Your task to perform on an android device: Open Google Maps Image 0: 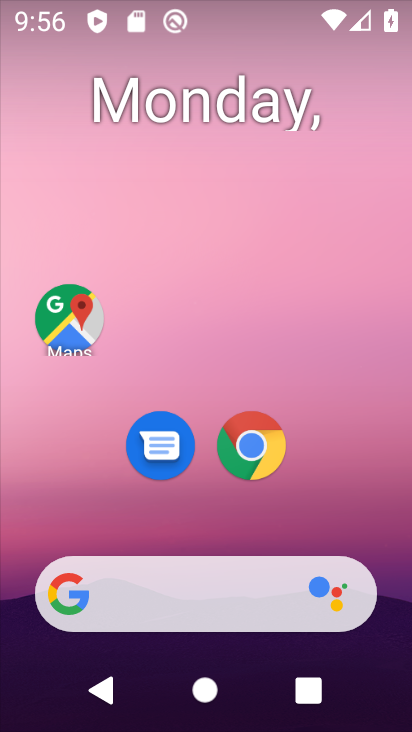
Step 0: click (54, 311)
Your task to perform on an android device: Open Google Maps Image 1: 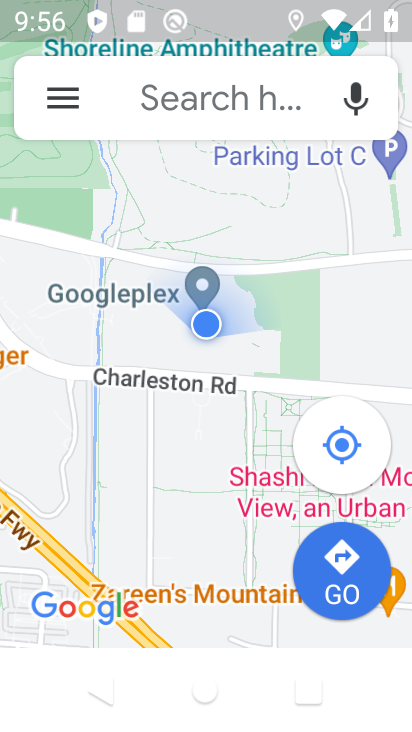
Step 1: task complete